Your task to perform on an android device: turn off smart reply in the gmail app Image 0: 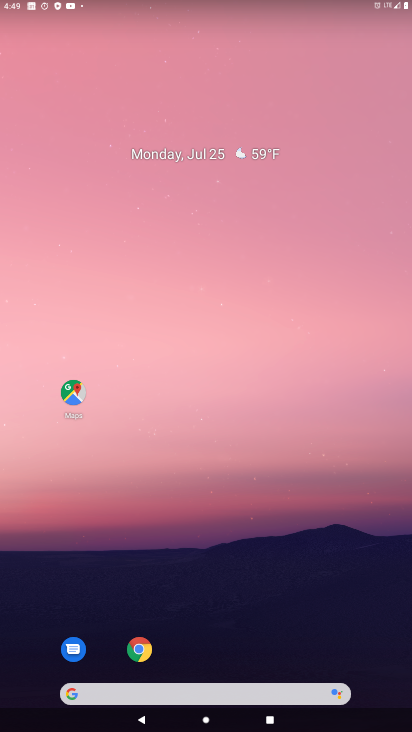
Step 0: drag from (269, 660) to (196, 25)
Your task to perform on an android device: turn off smart reply in the gmail app Image 1: 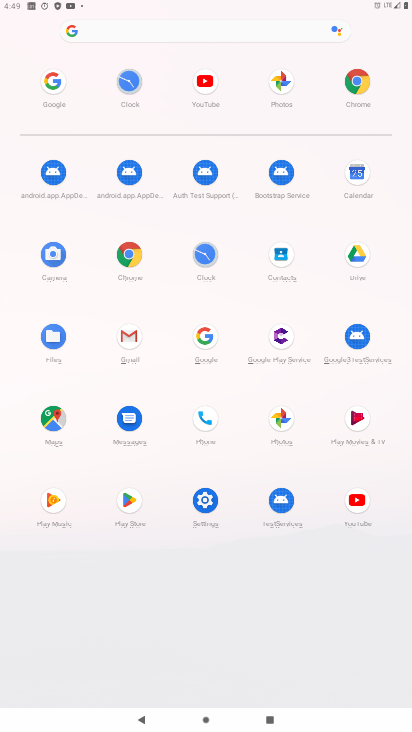
Step 1: click (129, 343)
Your task to perform on an android device: turn off smart reply in the gmail app Image 2: 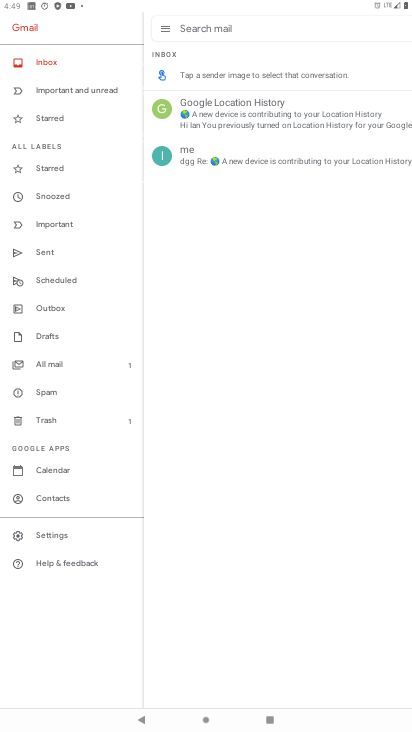
Step 2: click (88, 538)
Your task to perform on an android device: turn off smart reply in the gmail app Image 3: 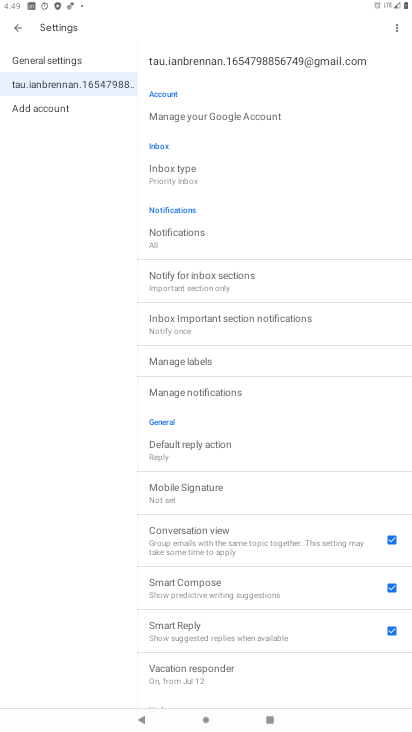
Step 3: click (390, 633)
Your task to perform on an android device: turn off smart reply in the gmail app Image 4: 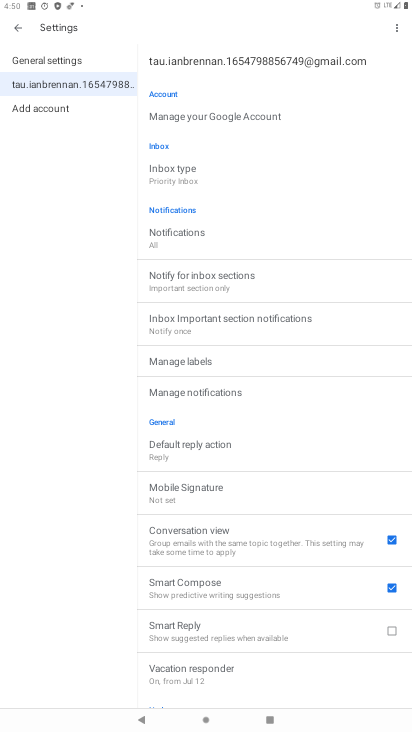
Step 4: task complete